Your task to perform on an android device: Open my contact list Image 0: 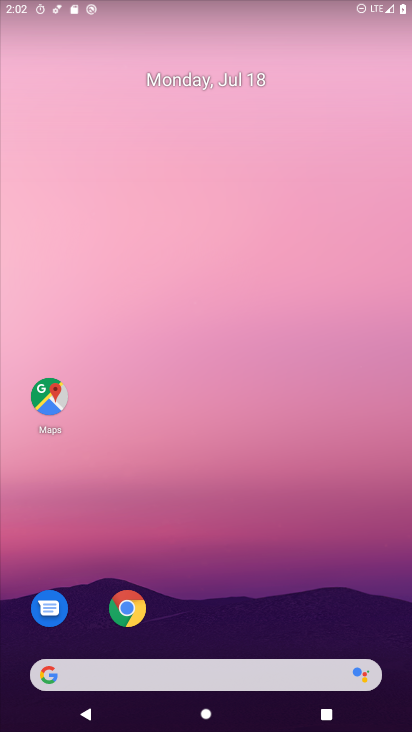
Step 0: drag from (224, 714) to (211, 202)
Your task to perform on an android device: Open my contact list Image 1: 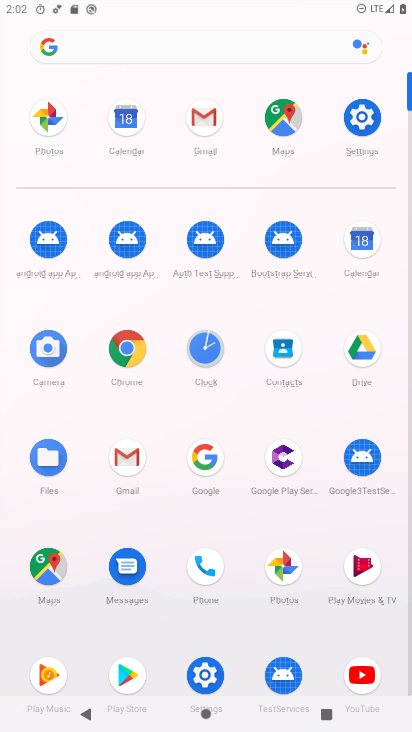
Step 1: click (284, 355)
Your task to perform on an android device: Open my contact list Image 2: 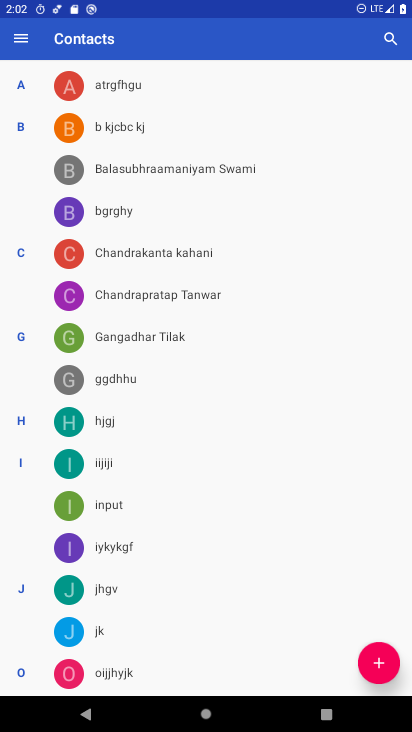
Step 2: task complete